Your task to perform on an android device: Open settings Image 0: 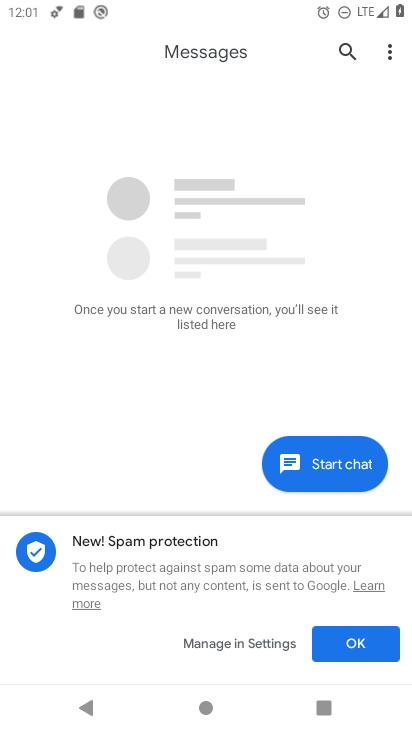
Step 0: press home button
Your task to perform on an android device: Open settings Image 1: 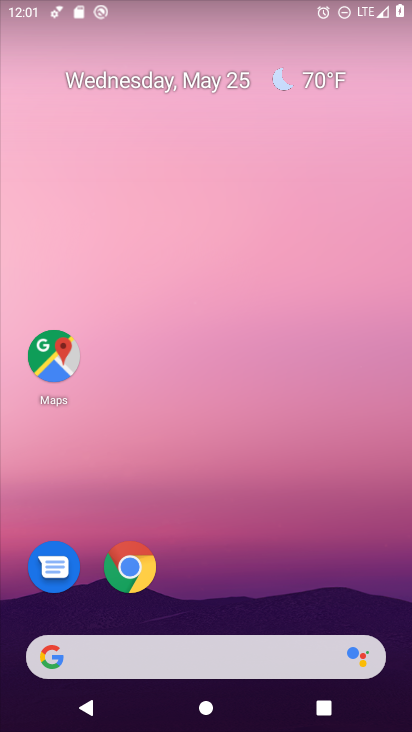
Step 1: drag from (398, 663) to (355, 121)
Your task to perform on an android device: Open settings Image 2: 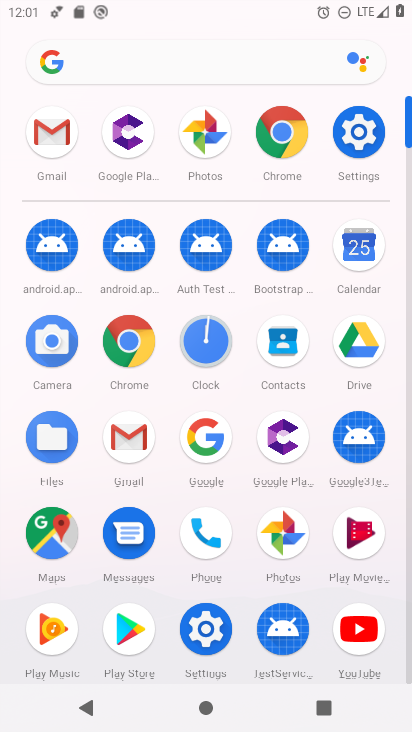
Step 2: click (347, 134)
Your task to perform on an android device: Open settings Image 3: 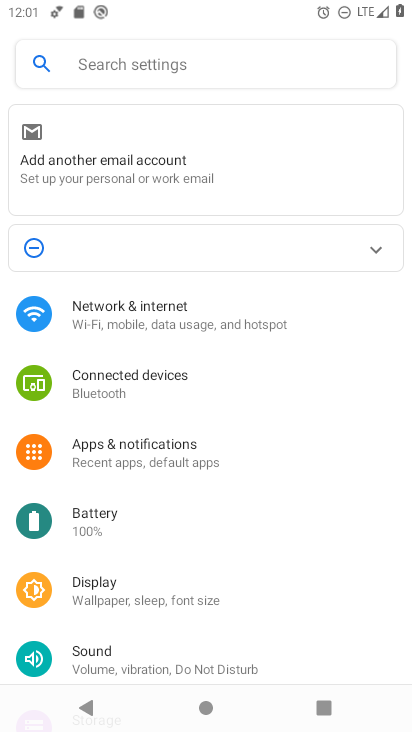
Step 3: task complete